Your task to perform on an android device: open app "Paramount+ | Peak Streaming" (install if not already installed) Image 0: 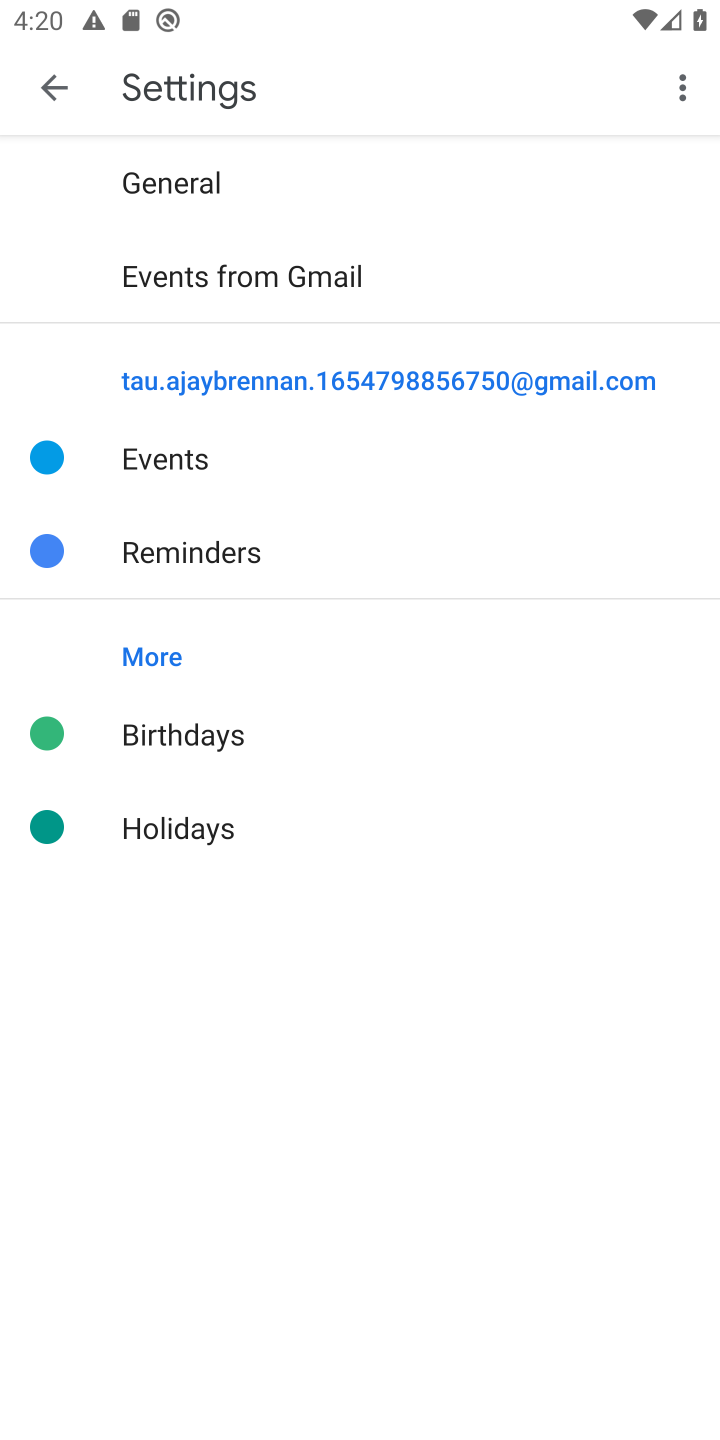
Step 0: press home button
Your task to perform on an android device: open app "Paramount+ | Peak Streaming" (install if not already installed) Image 1: 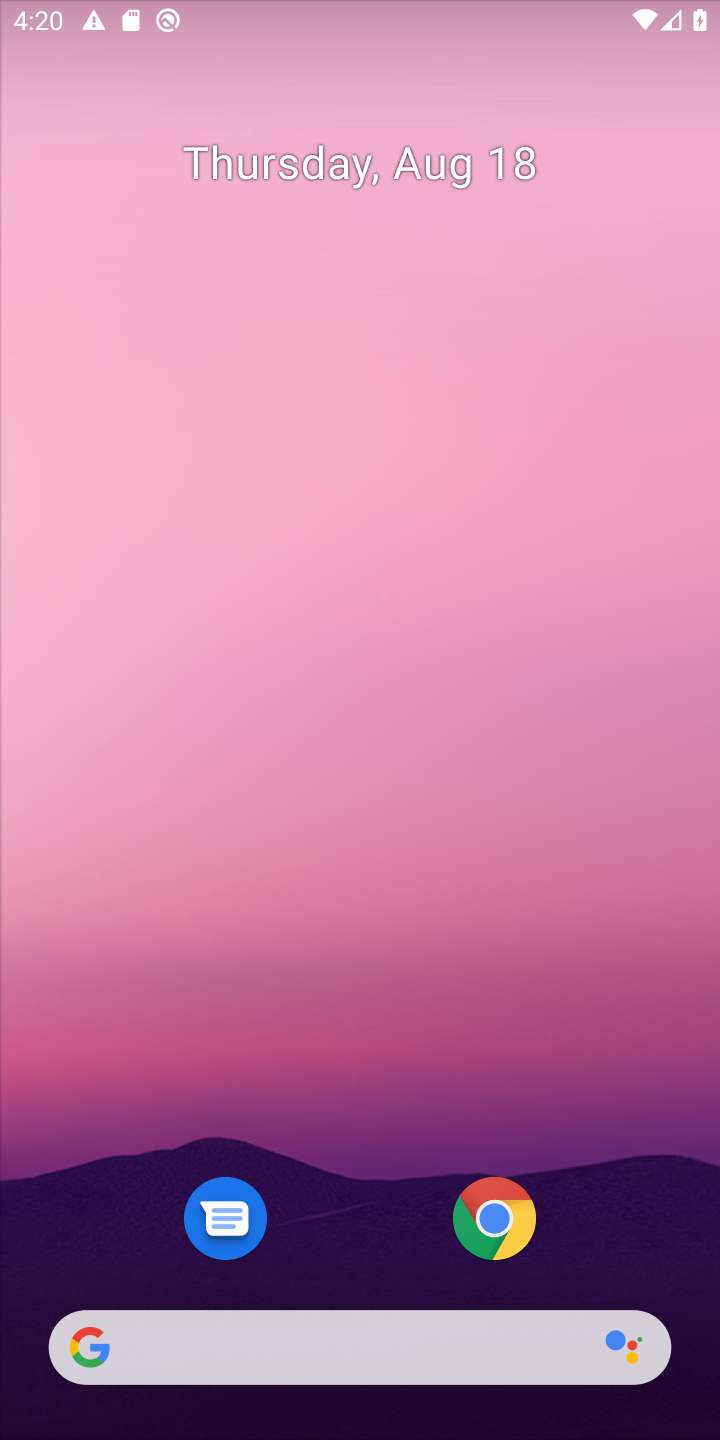
Step 1: drag from (359, 1076) to (349, 317)
Your task to perform on an android device: open app "Paramount+ | Peak Streaming" (install if not already installed) Image 2: 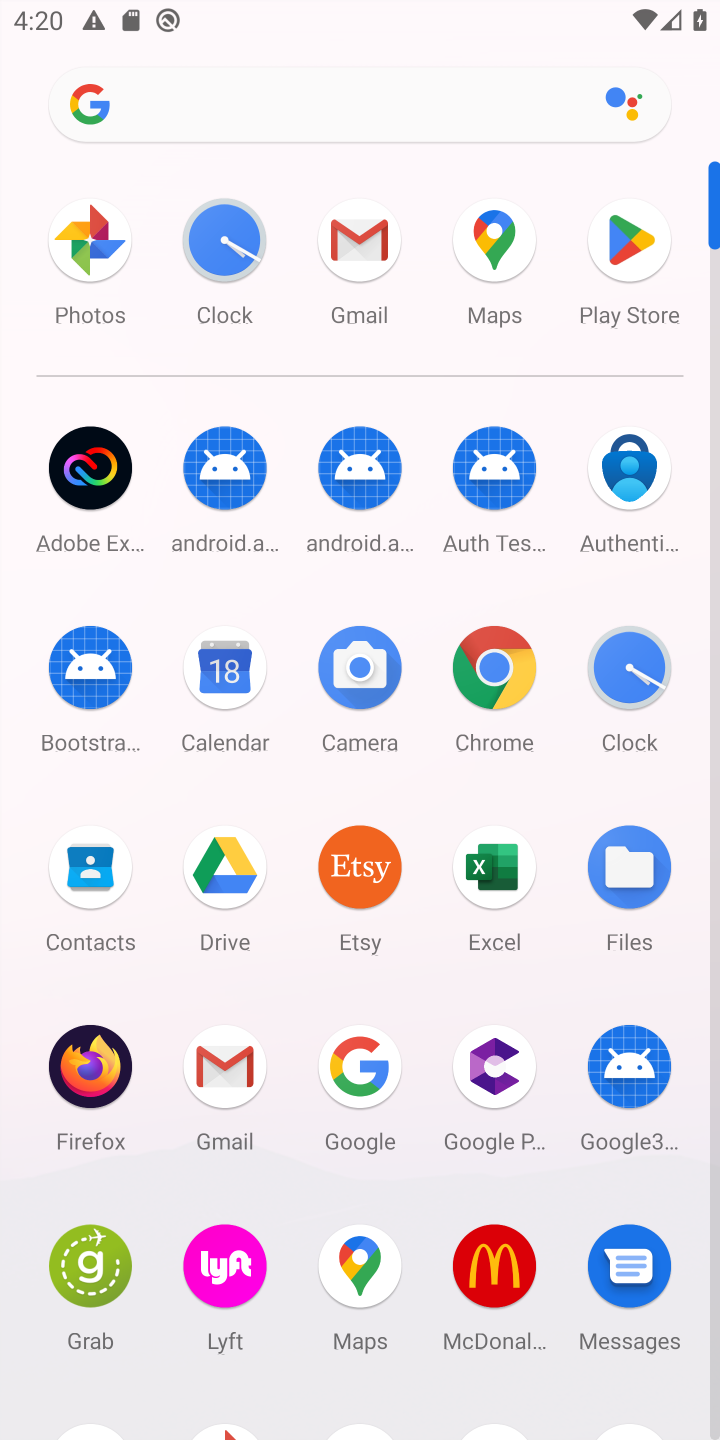
Step 2: click (626, 270)
Your task to perform on an android device: open app "Paramount+ | Peak Streaming" (install if not already installed) Image 3: 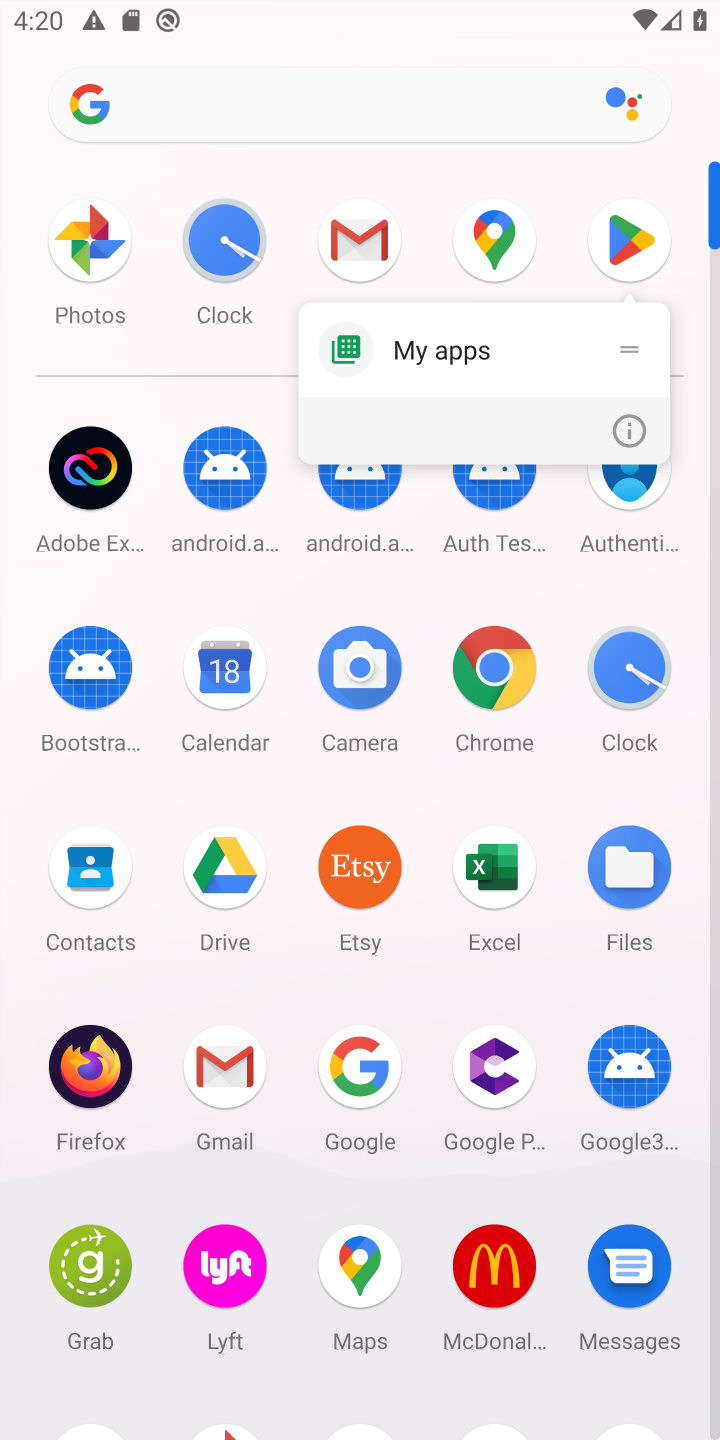
Step 3: click (626, 231)
Your task to perform on an android device: open app "Paramount+ | Peak Streaming" (install if not already installed) Image 4: 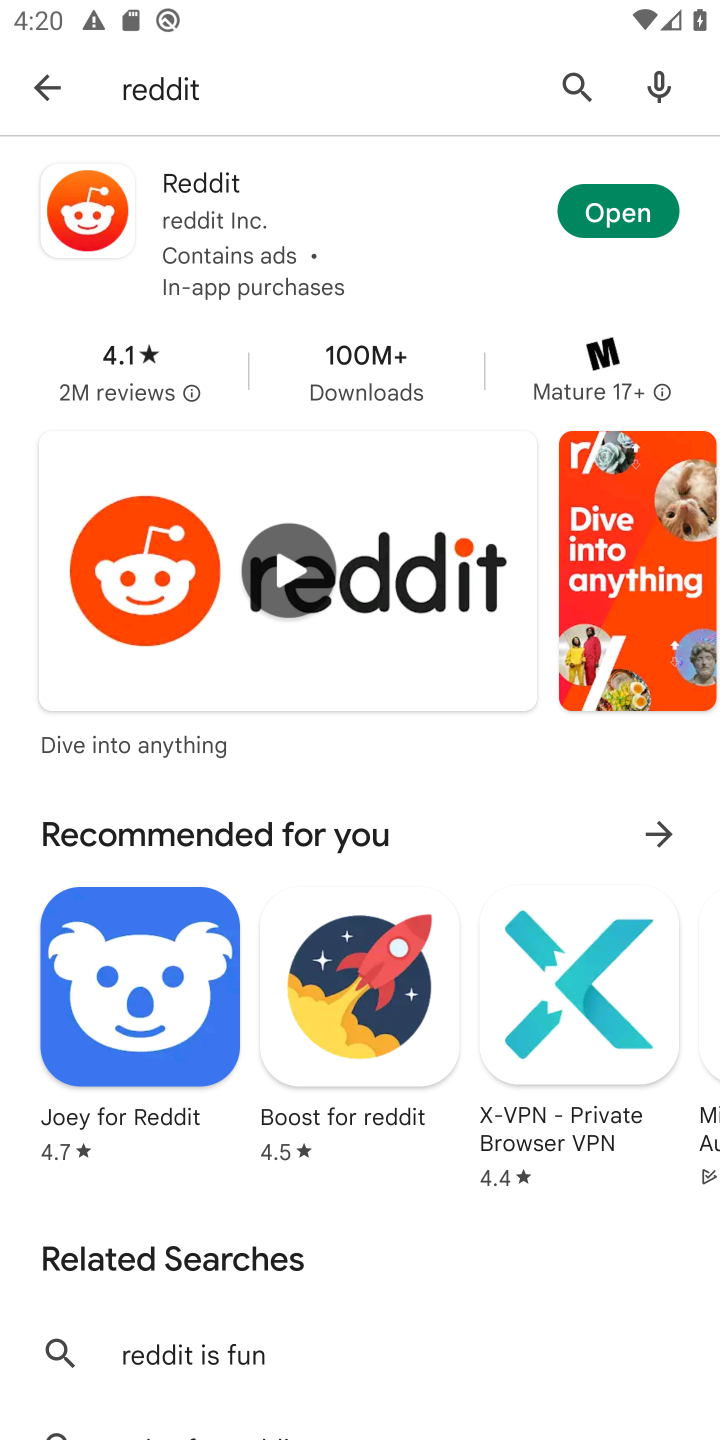
Step 4: click (562, 84)
Your task to perform on an android device: open app "Paramount+ | Peak Streaming" (install if not already installed) Image 5: 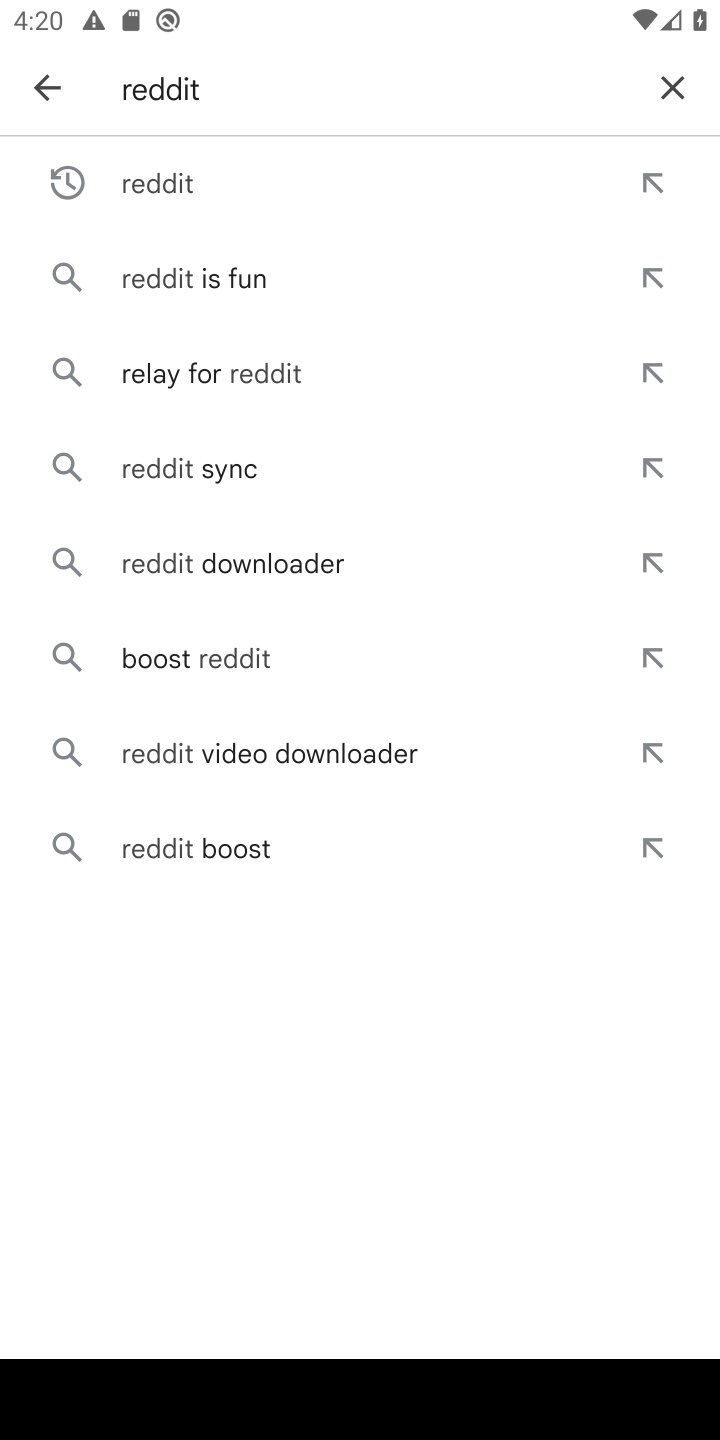
Step 5: click (675, 97)
Your task to perform on an android device: open app "Paramount+ | Peak Streaming" (install if not already installed) Image 6: 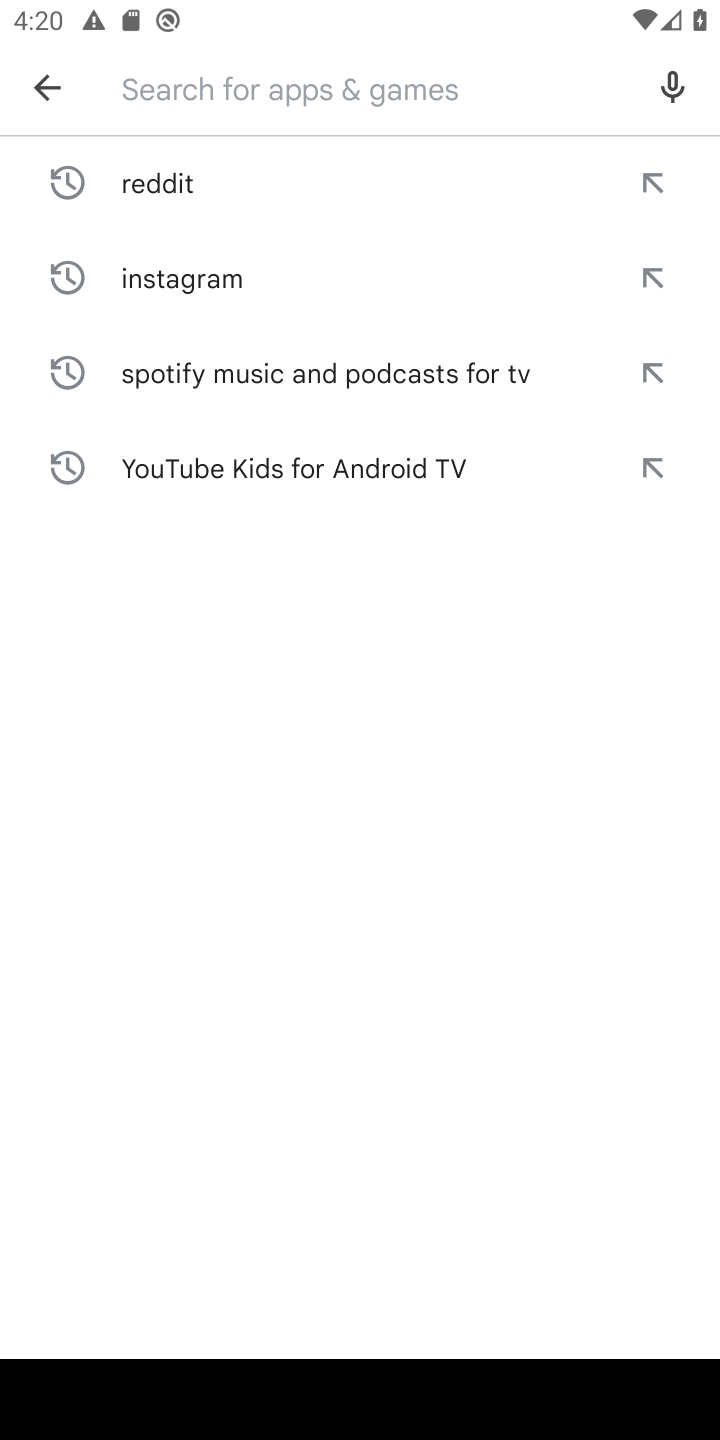
Step 6: drag from (24, 675) to (719, 1407)
Your task to perform on an android device: open app "Paramount+ | Peak Streaming" (install if not already installed) Image 7: 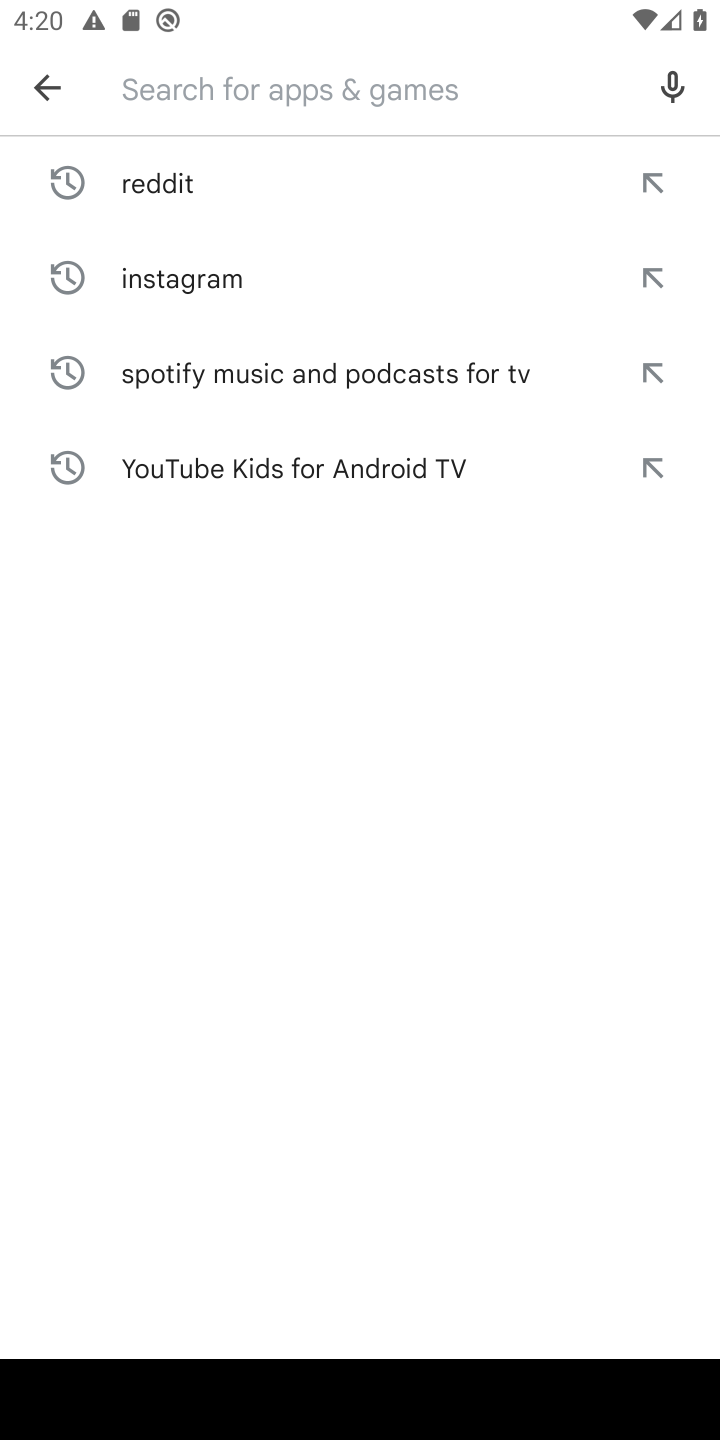
Step 7: type "Paramount+ | Peak Streaming"
Your task to perform on an android device: open app "Paramount+ | Peak Streaming" (install if not already installed) Image 8: 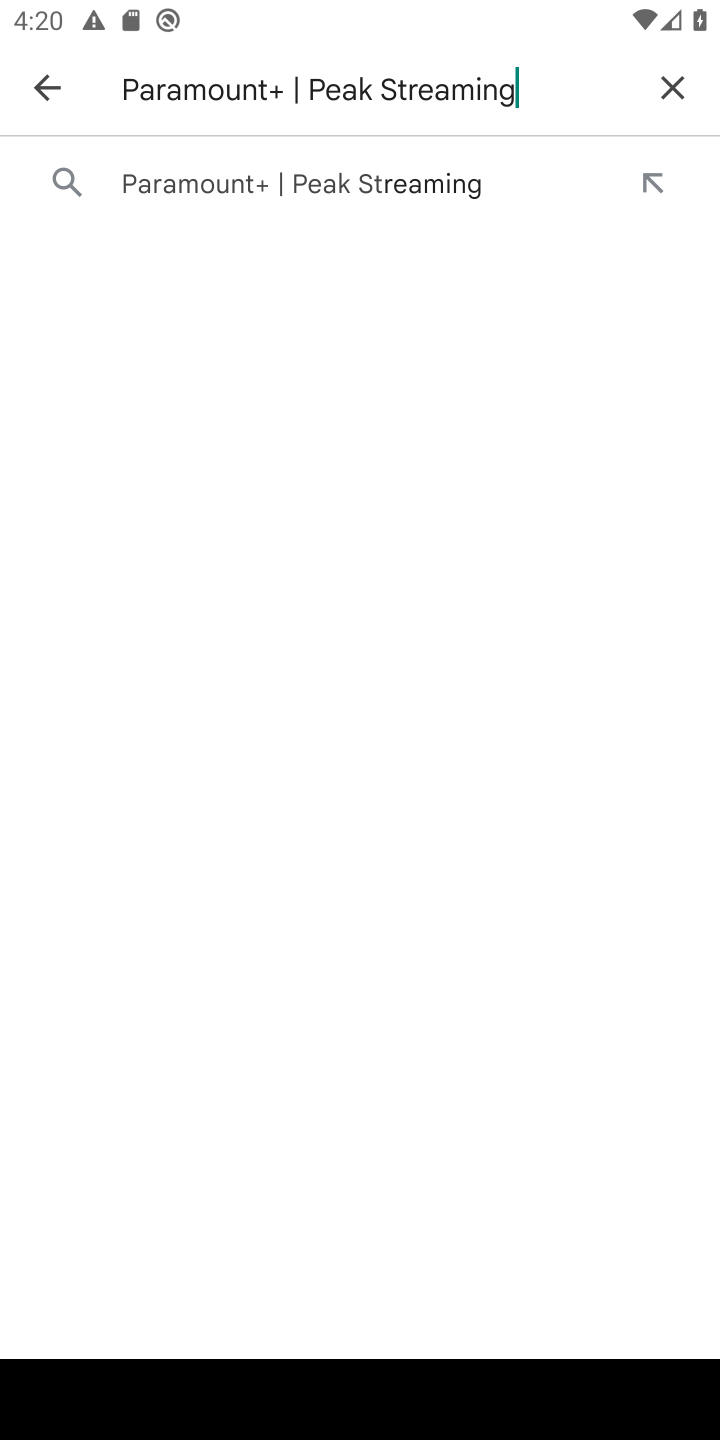
Step 8: type ""
Your task to perform on an android device: open app "Paramount+ | Peak Streaming" (install if not already installed) Image 9: 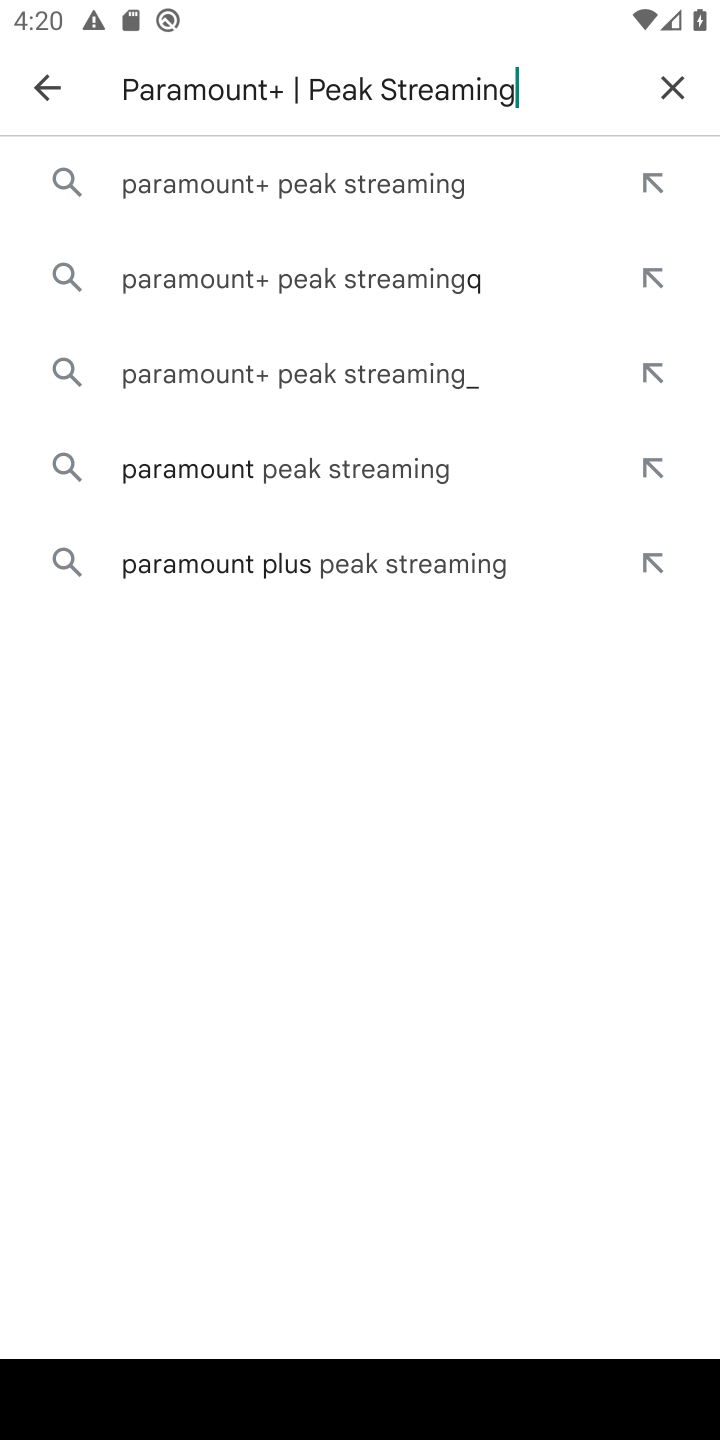
Step 9: click (338, 199)
Your task to perform on an android device: open app "Paramount+ | Peak Streaming" (install if not already installed) Image 10: 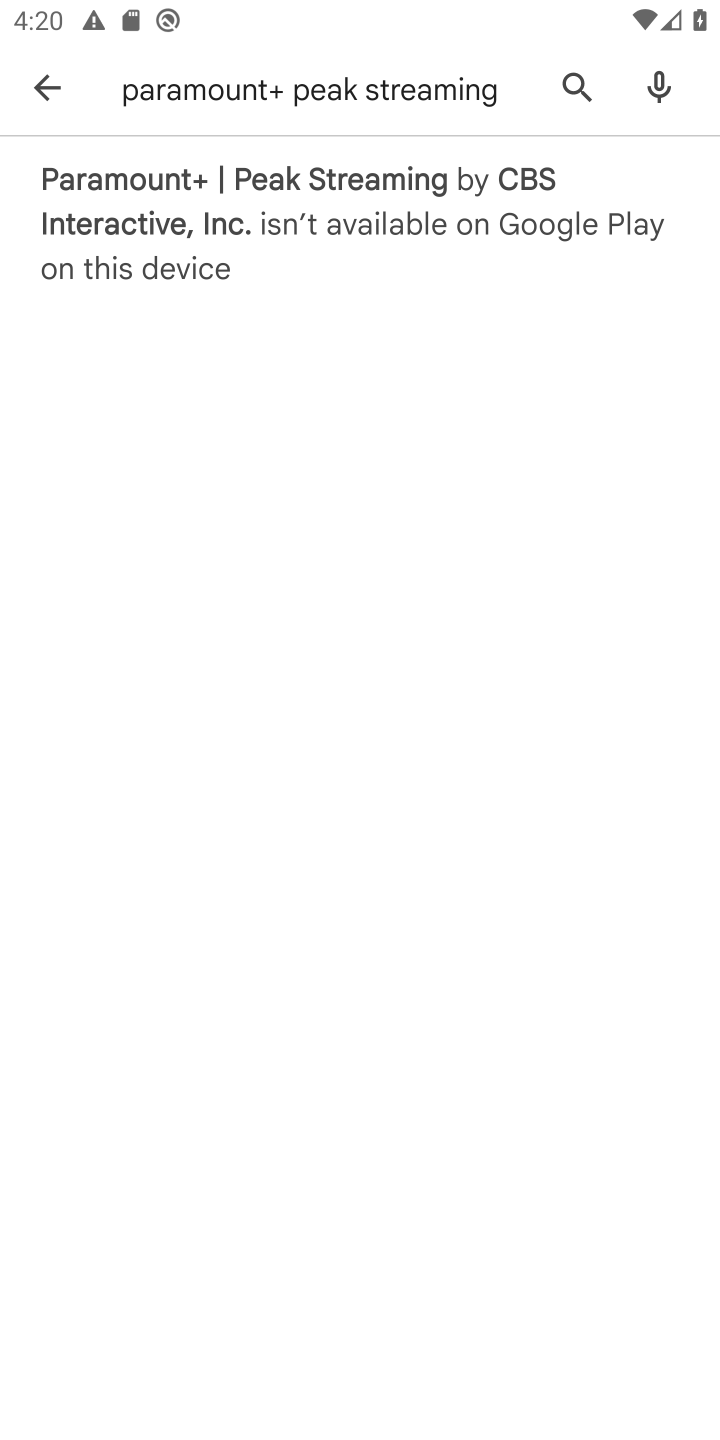
Step 10: click (338, 199)
Your task to perform on an android device: open app "Paramount+ | Peak Streaming" (install if not already installed) Image 11: 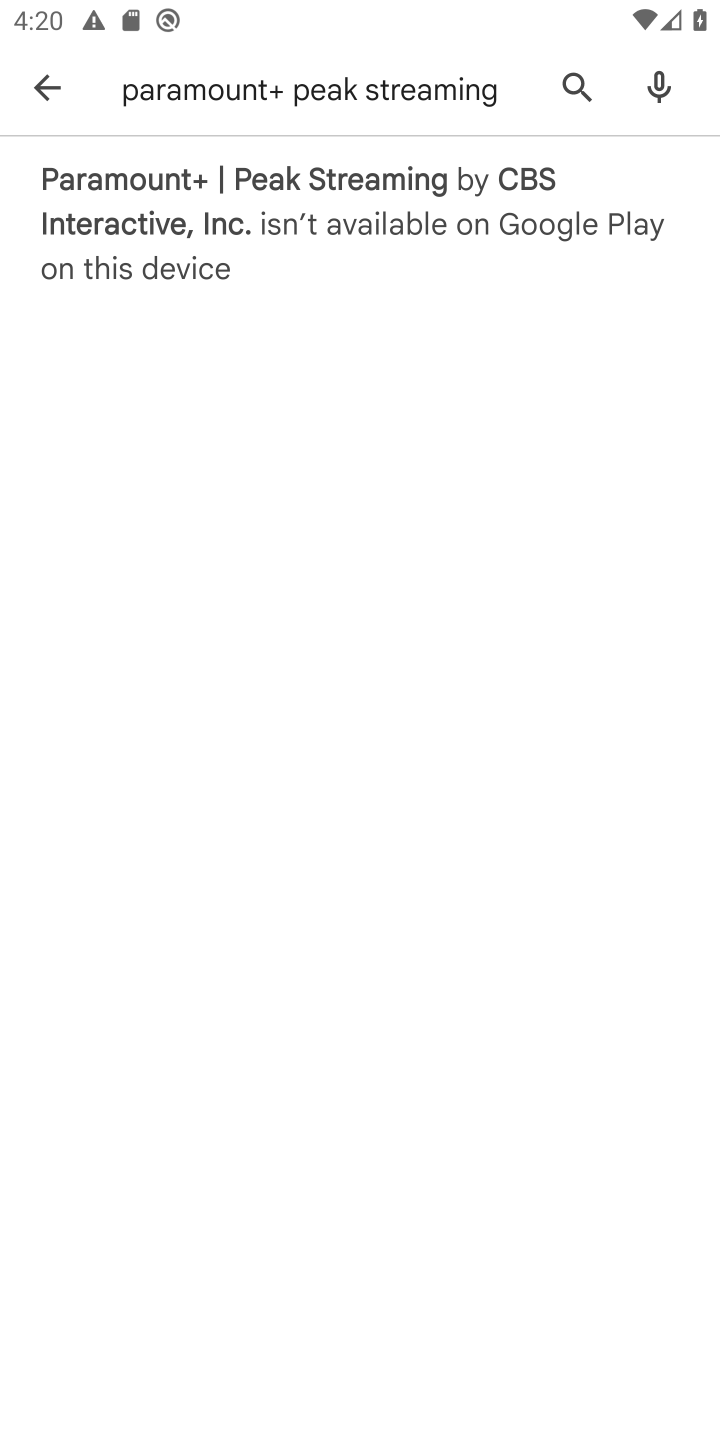
Step 11: click (338, 199)
Your task to perform on an android device: open app "Paramount+ | Peak Streaming" (install if not already installed) Image 12: 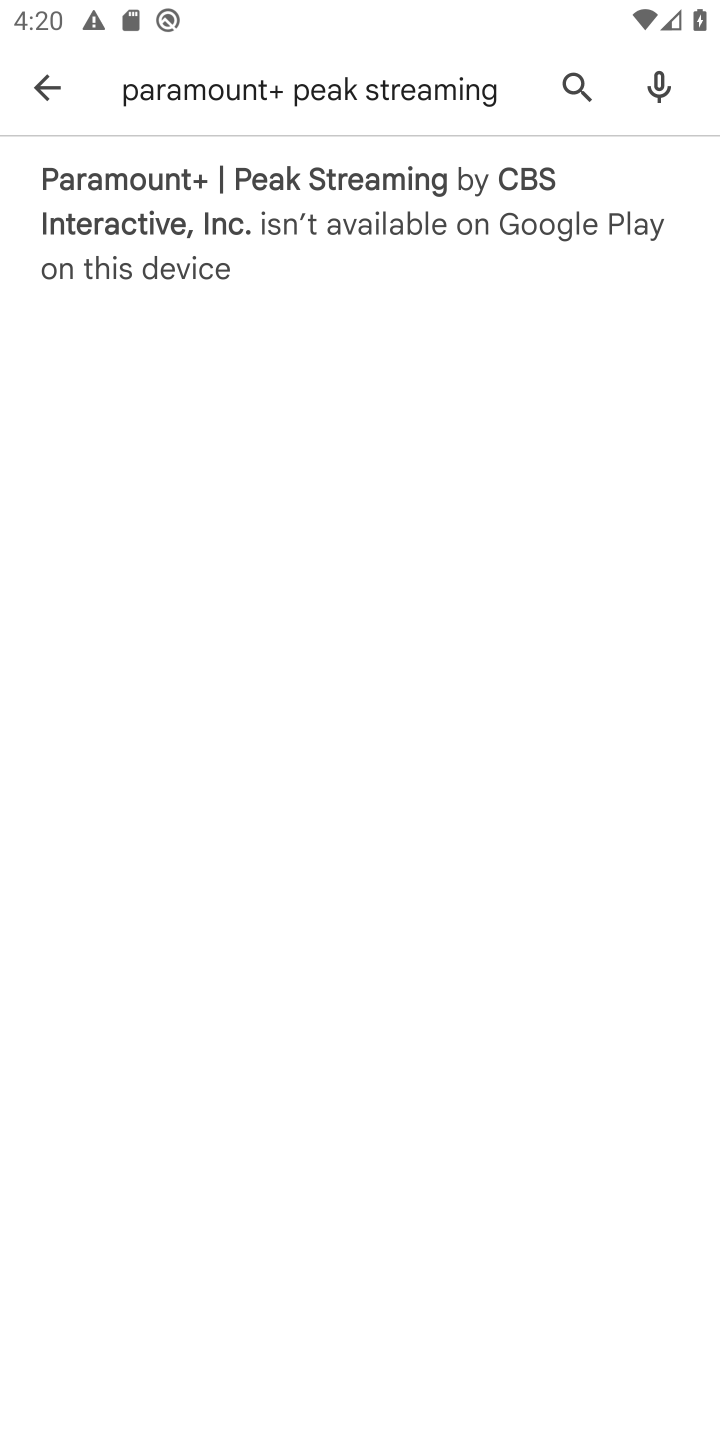
Step 12: task complete